Your task to perform on an android device: all mails in gmail Image 0: 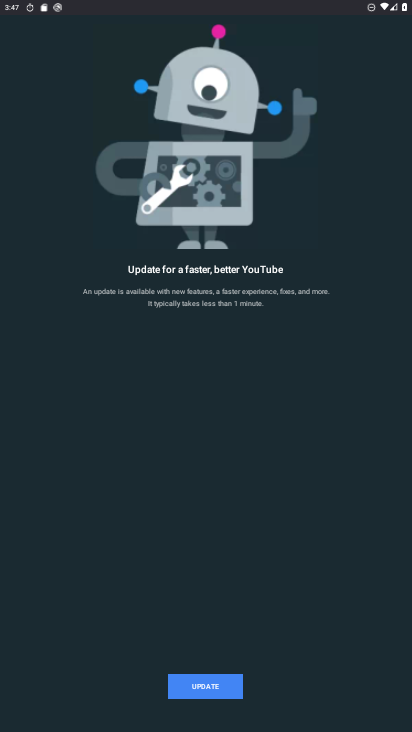
Step 0: press home button
Your task to perform on an android device: all mails in gmail Image 1: 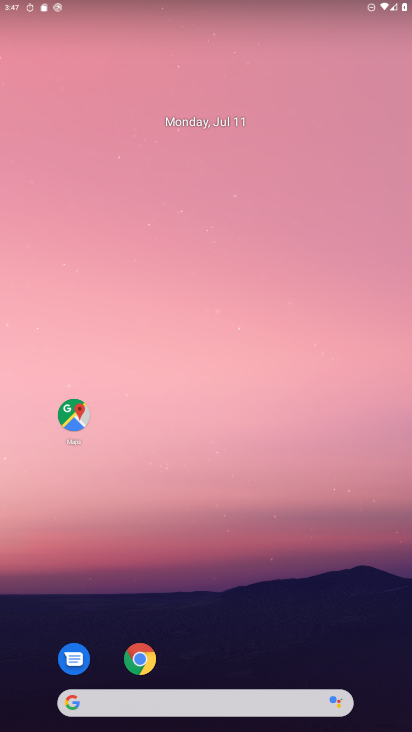
Step 1: drag from (253, 651) to (235, 301)
Your task to perform on an android device: all mails in gmail Image 2: 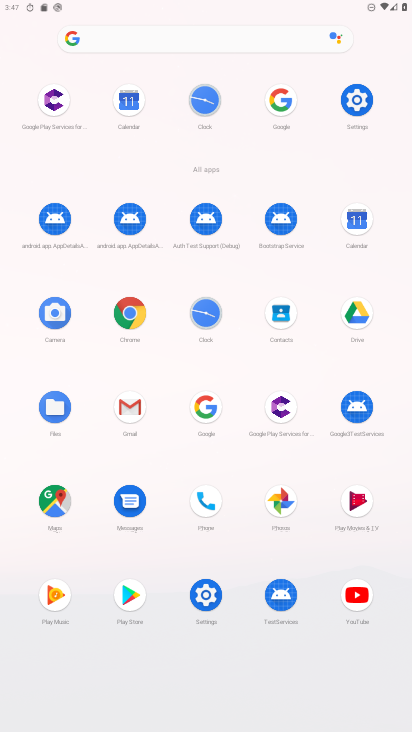
Step 2: click (122, 409)
Your task to perform on an android device: all mails in gmail Image 3: 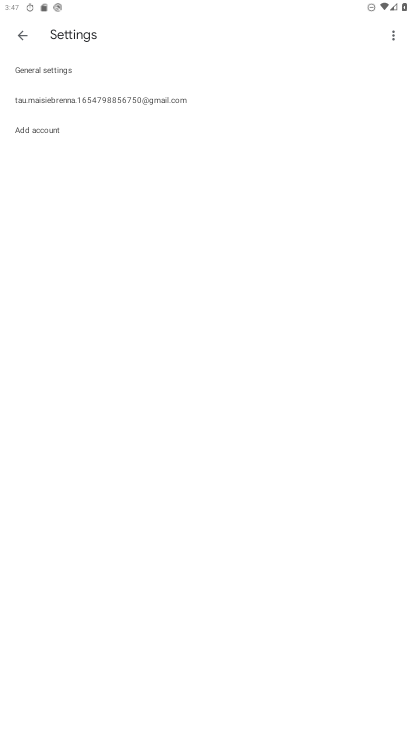
Step 3: click (56, 95)
Your task to perform on an android device: all mails in gmail Image 4: 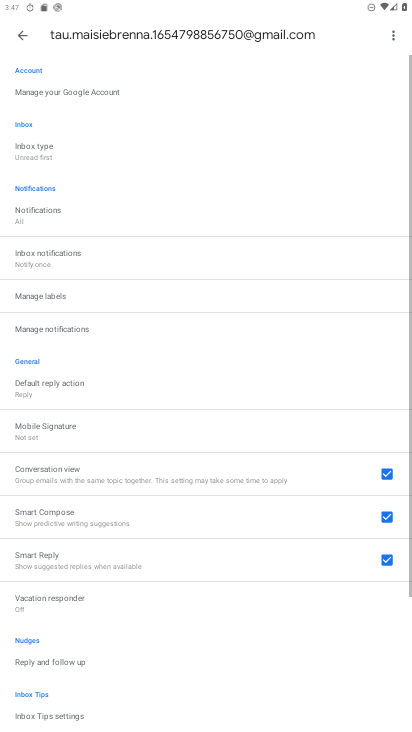
Step 4: click (25, 43)
Your task to perform on an android device: all mails in gmail Image 5: 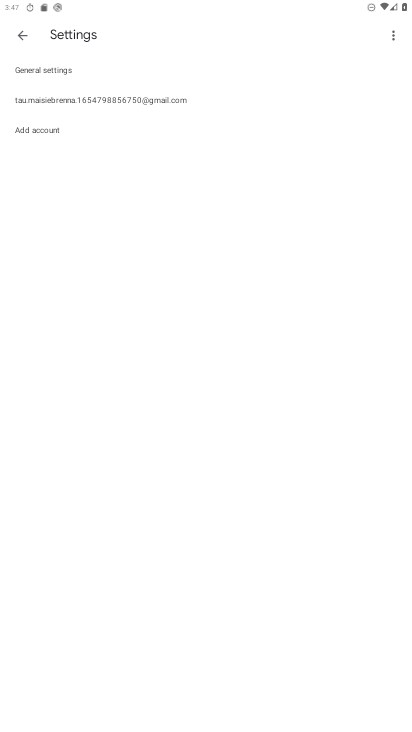
Step 5: click (25, 43)
Your task to perform on an android device: all mails in gmail Image 6: 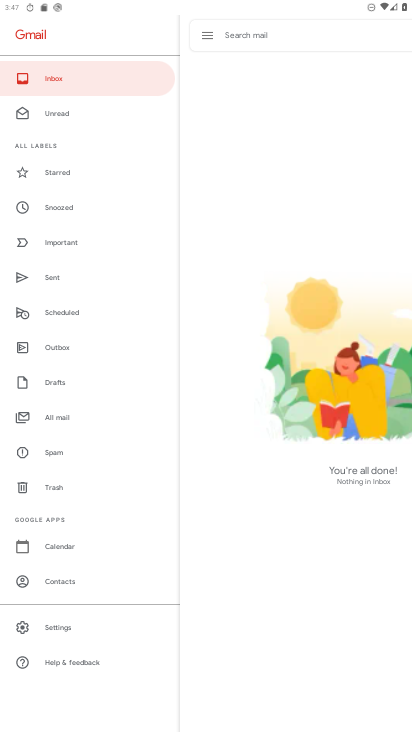
Step 6: click (67, 423)
Your task to perform on an android device: all mails in gmail Image 7: 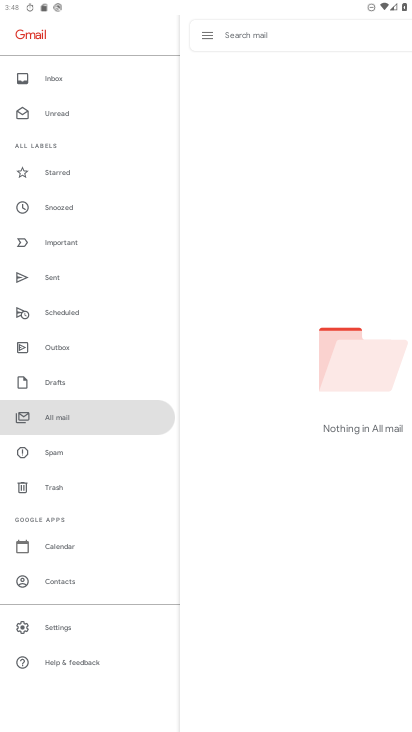
Step 7: task complete